Your task to perform on an android device: turn off notifications settings in the gmail app Image 0: 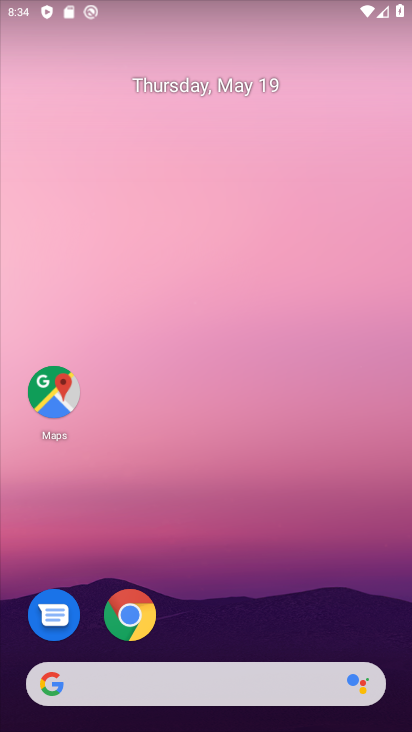
Step 0: drag from (294, 591) to (337, 124)
Your task to perform on an android device: turn off notifications settings in the gmail app Image 1: 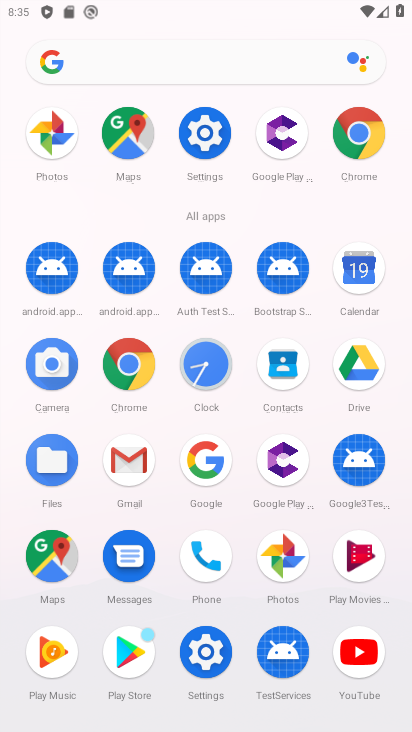
Step 1: click (139, 442)
Your task to perform on an android device: turn off notifications settings in the gmail app Image 2: 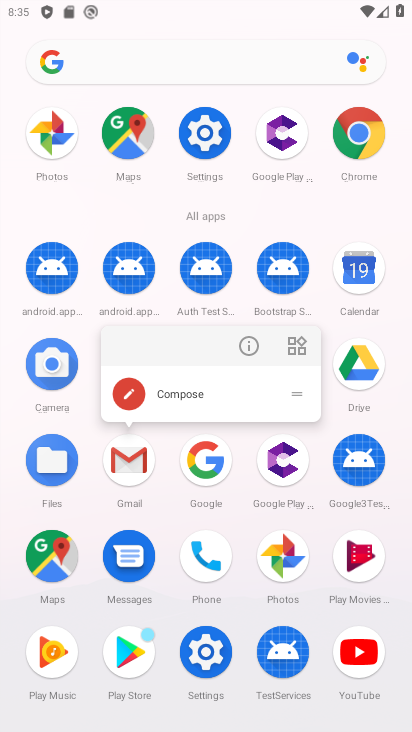
Step 2: click (257, 343)
Your task to perform on an android device: turn off notifications settings in the gmail app Image 3: 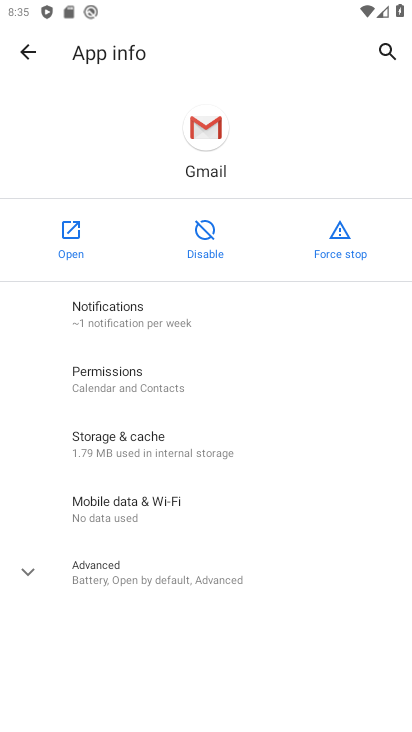
Step 3: click (91, 318)
Your task to perform on an android device: turn off notifications settings in the gmail app Image 4: 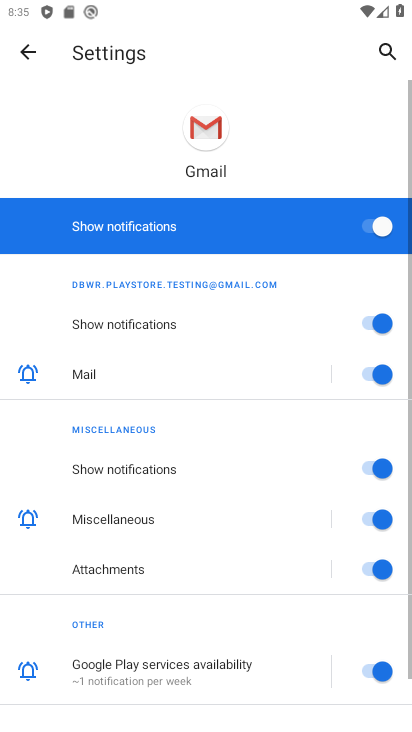
Step 4: click (379, 218)
Your task to perform on an android device: turn off notifications settings in the gmail app Image 5: 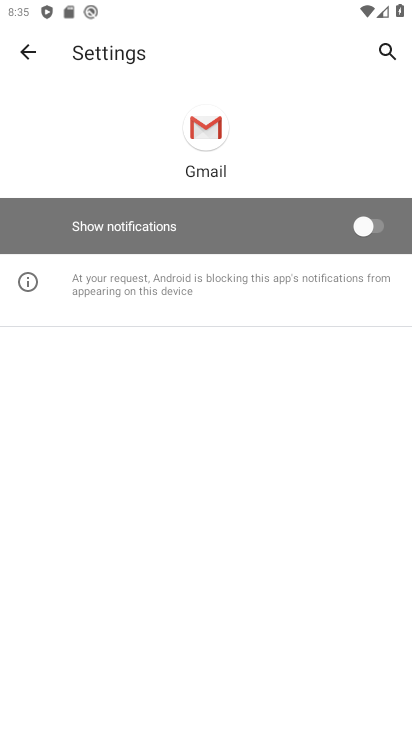
Step 5: task complete